Your task to perform on an android device: Open notification settings Image 0: 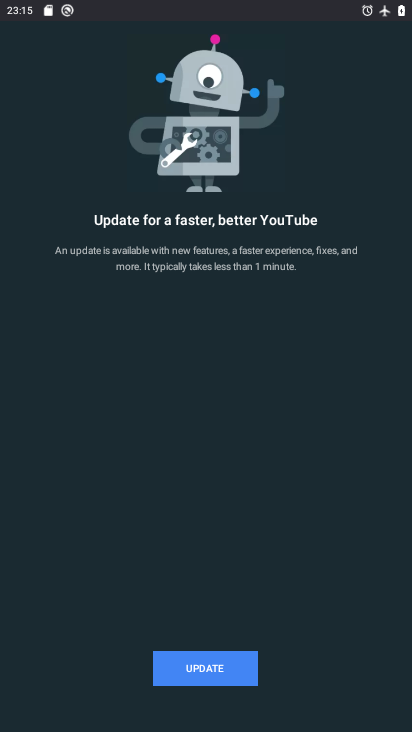
Step 0: press home button
Your task to perform on an android device: Open notification settings Image 1: 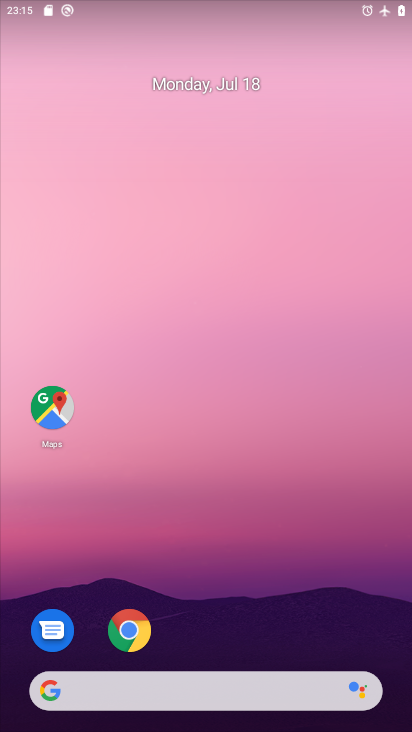
Step 1: drag from (242, 614) to (195, 127)
Your task to perform on an android device: Open notification settings Image 2: 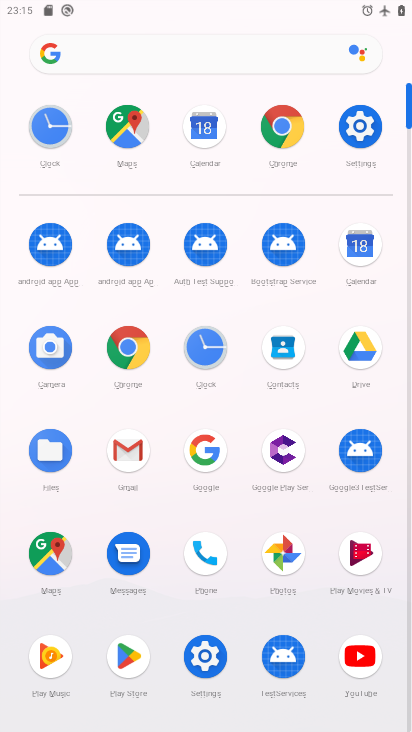
Step 2: click (347, 121)
Your task to perform on an android device: Open notification settings Image 3: 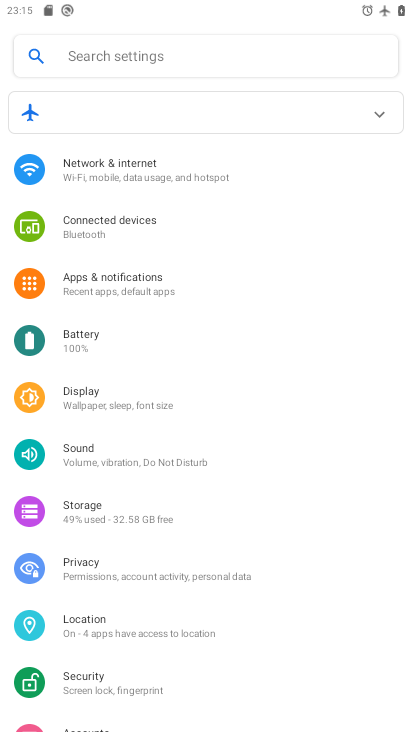
Step 3: click (131, 294)
Your task to perform on an android device: Open notification settings Image 4: 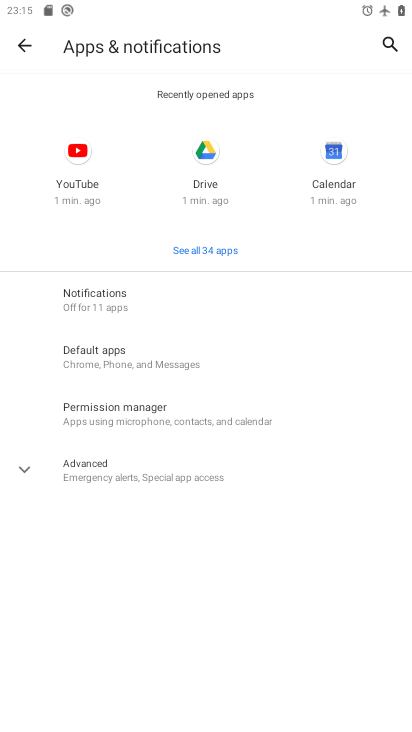
Step 4: click (131, 317)
Your task to perform on an android device: Open notification settings Image 5: 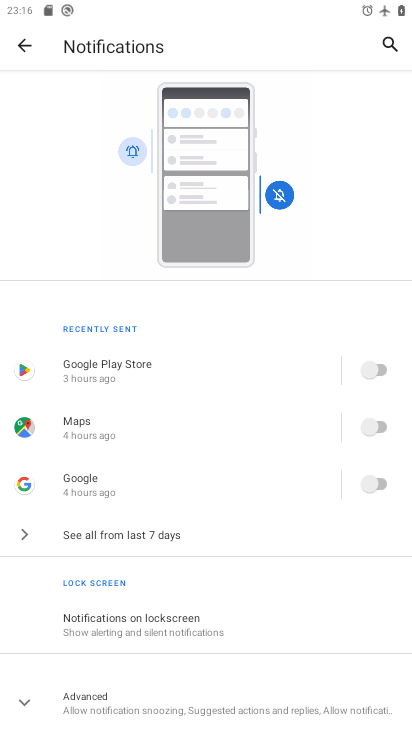
Step 5: task complete